Your task to perform on an android device: What's the weather? Image 0: 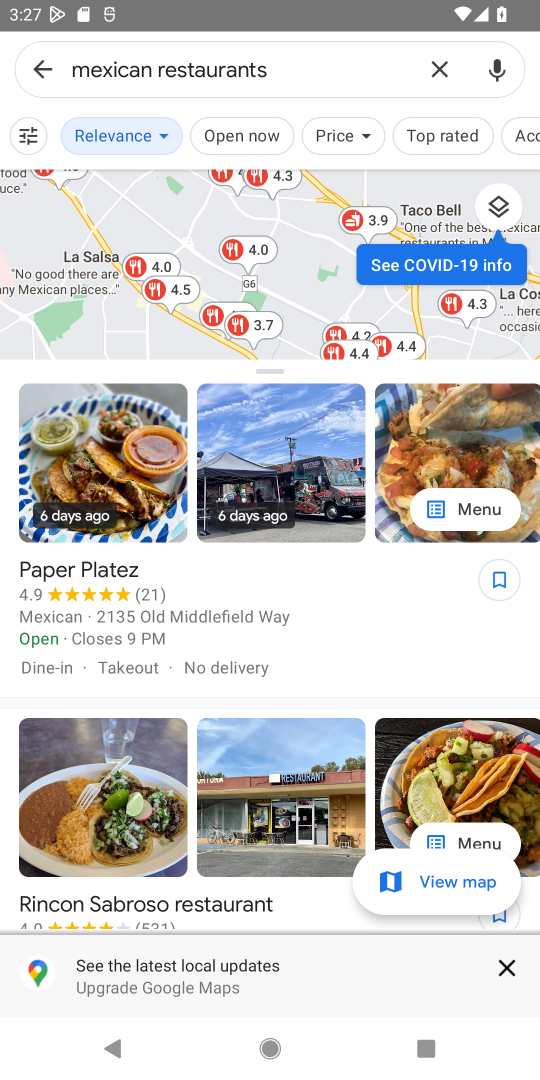
Step 0: press home button
Your task to perform on an android device: What's the weather? Image 1: 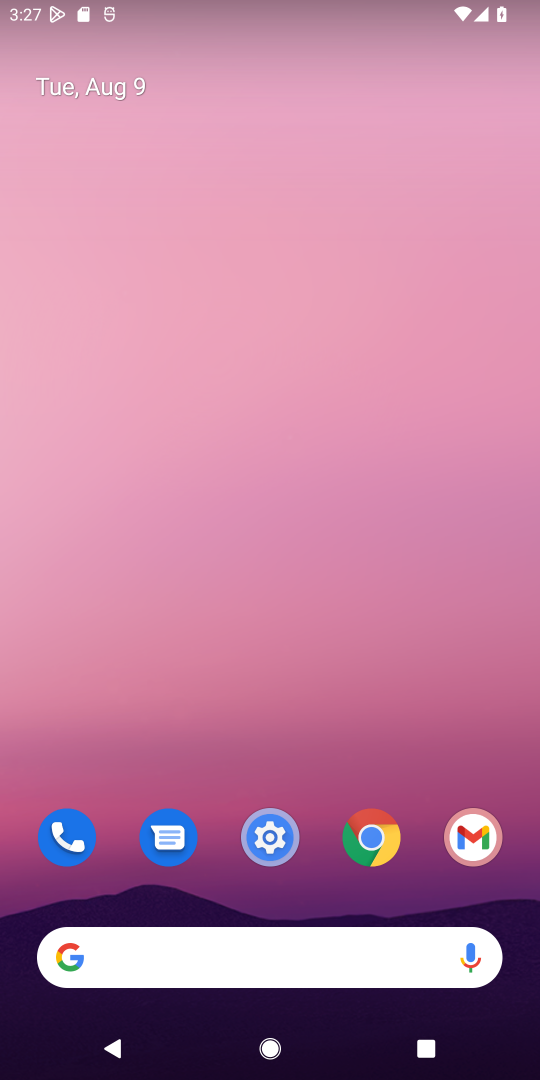
Step 1: drag from (262, 1011) to (319, 315)
Your task to perform on an android device: What's the weather? Image 2: 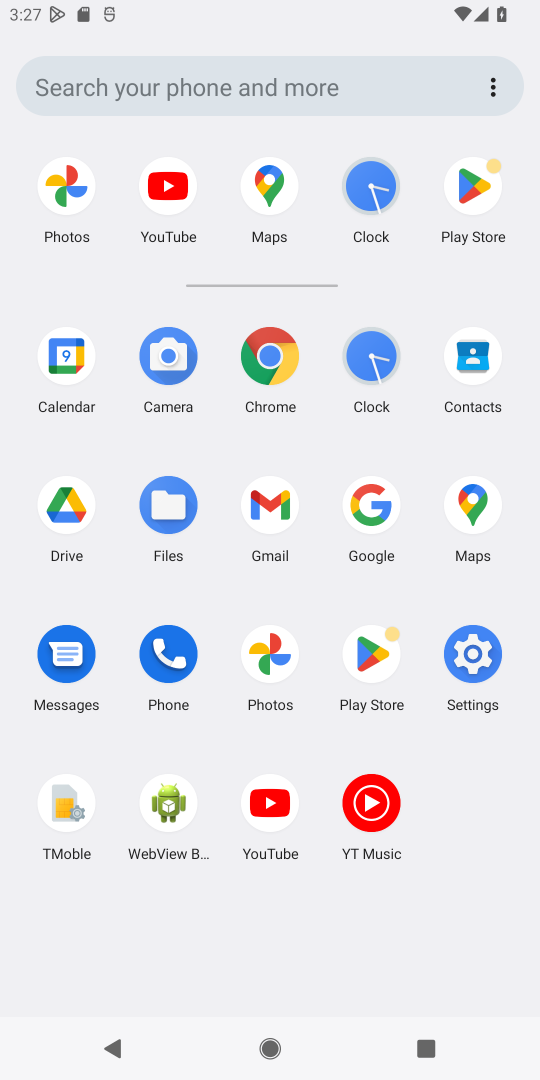
Step 2: click (270, 357)
Your task to perform on an android device: What's the weather? Image 3: 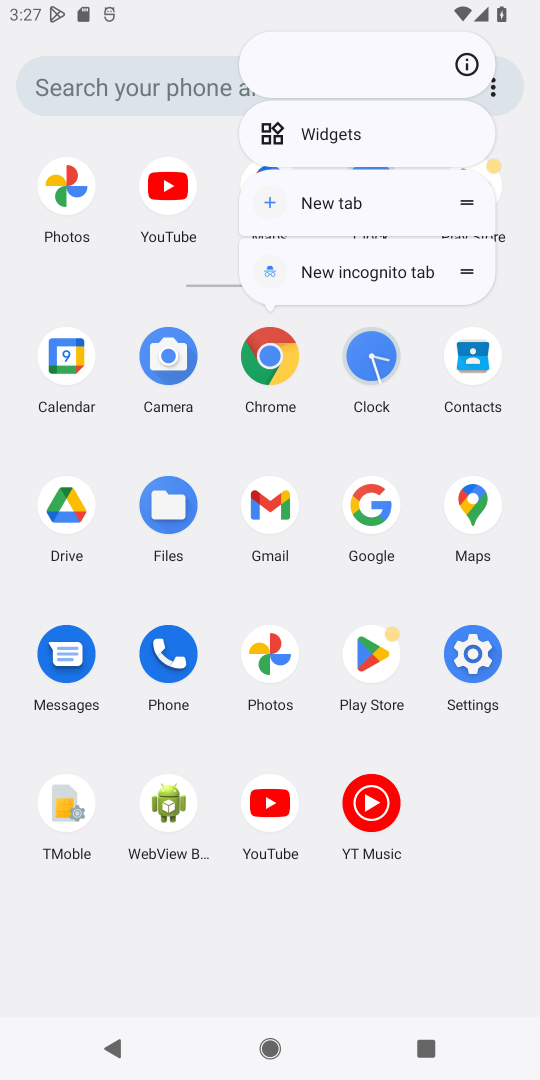
Step 3: click (265, 342)
Your task to perform on an android device: What's the weather? Image 4: 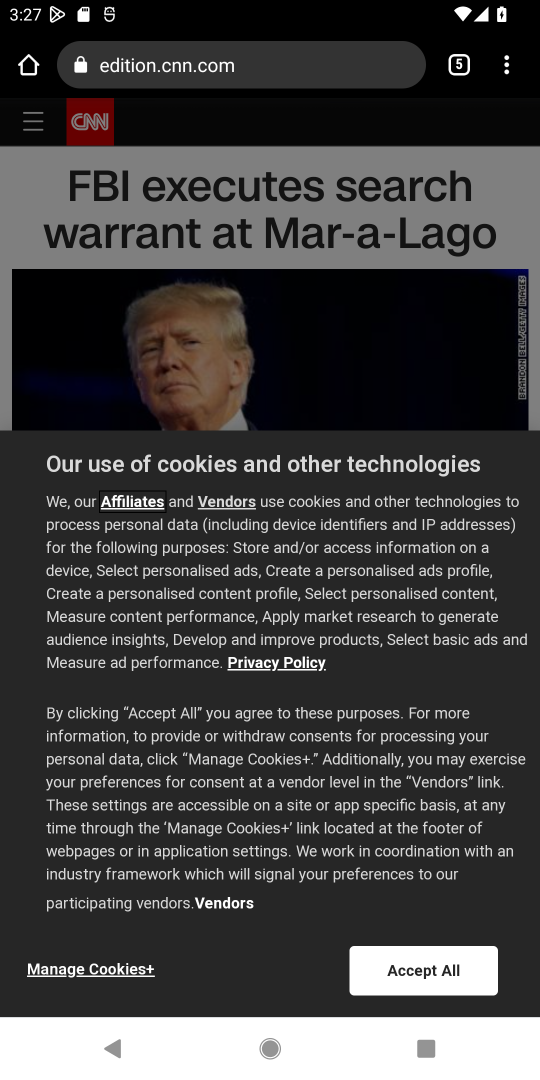
Step 4: click (511, 69)
Your task to perform on an android device: What's the weather? Image 5: 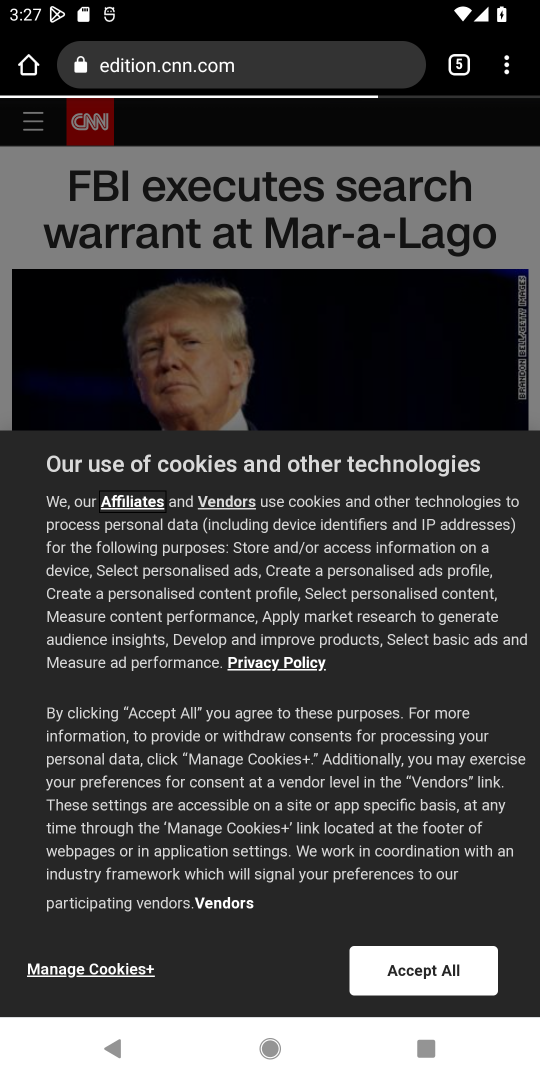
Step 5: click (511, 69)
Your task to perform on an android device: What's the weather? Image 6: 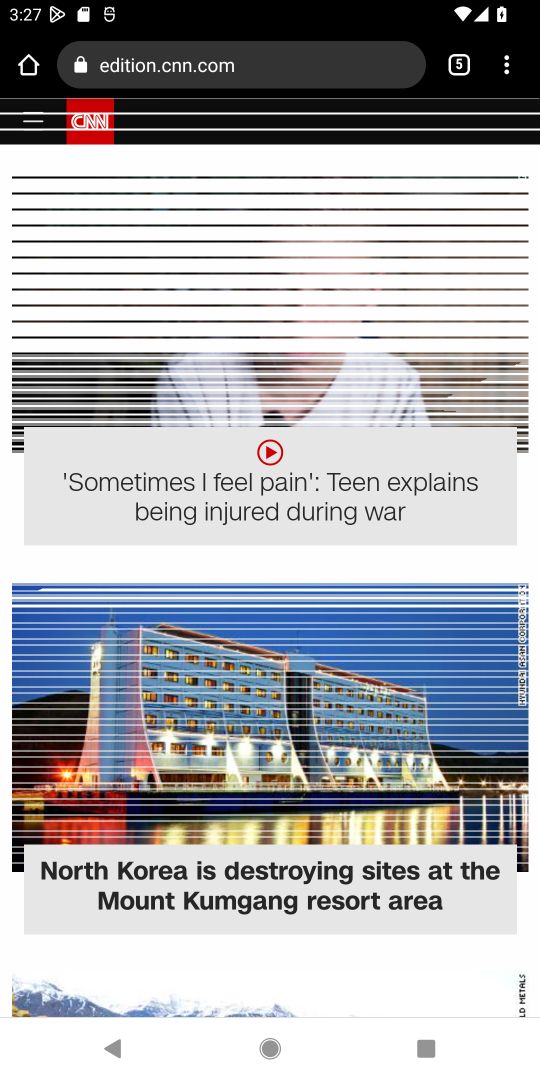
Step 6: click (511, 69)
Your task to perform on an android device: What's the weather? Image 7: 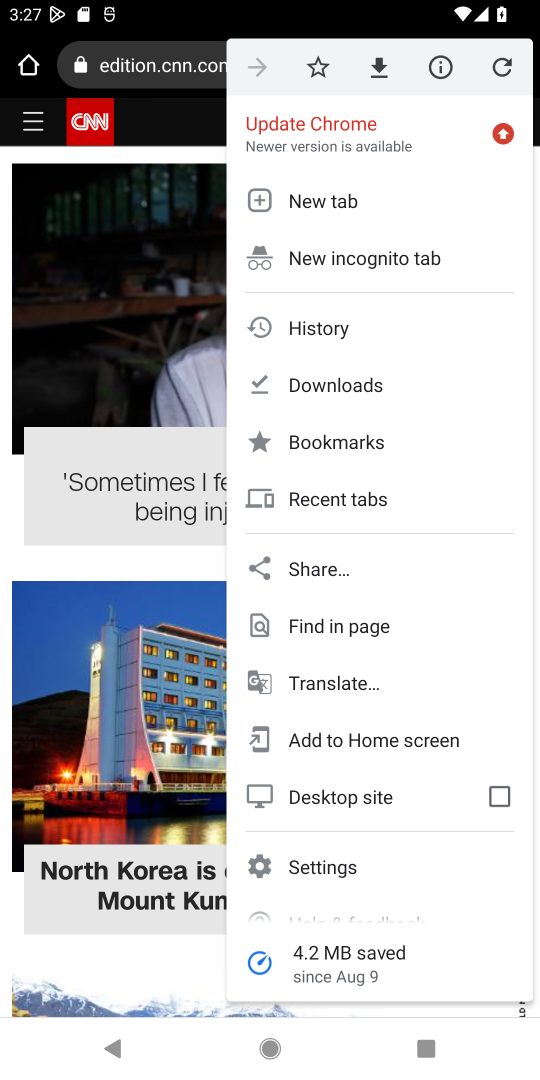
Step 7: click (352, 193)
Your task to perform on an android device: What's the weather? Image 8: 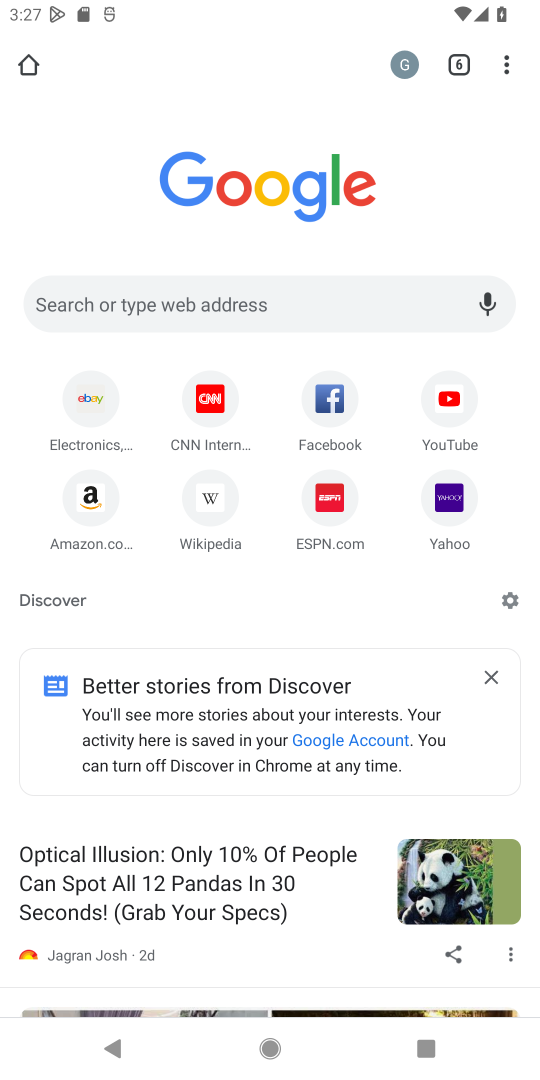
Step 8: click (81, 288)
Your task to perform on an android device: What's the weather? Image 9: 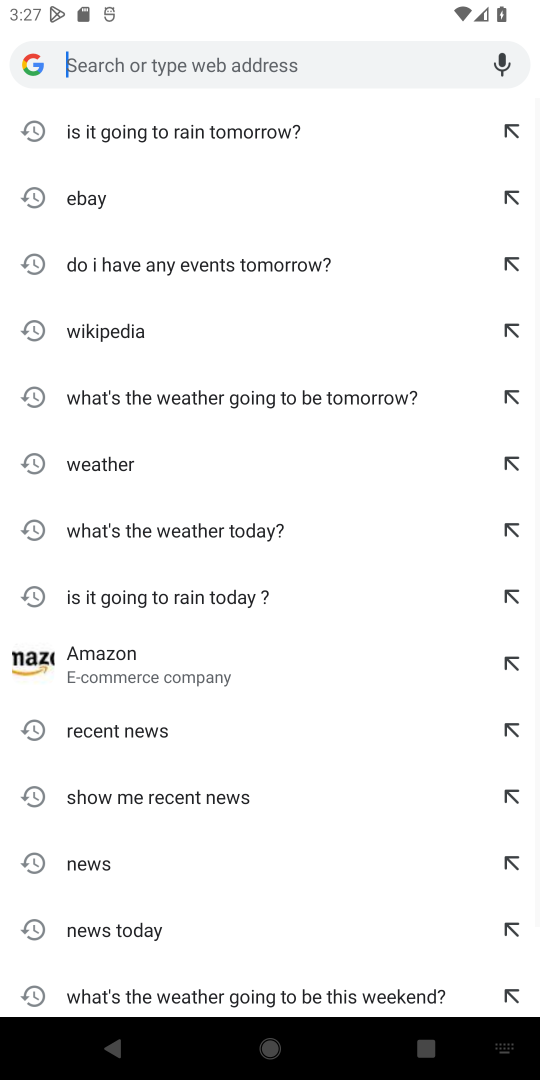
Step 9: type "What's the weather? "
Your task to perform on an android device: What's the weather? Image 10: 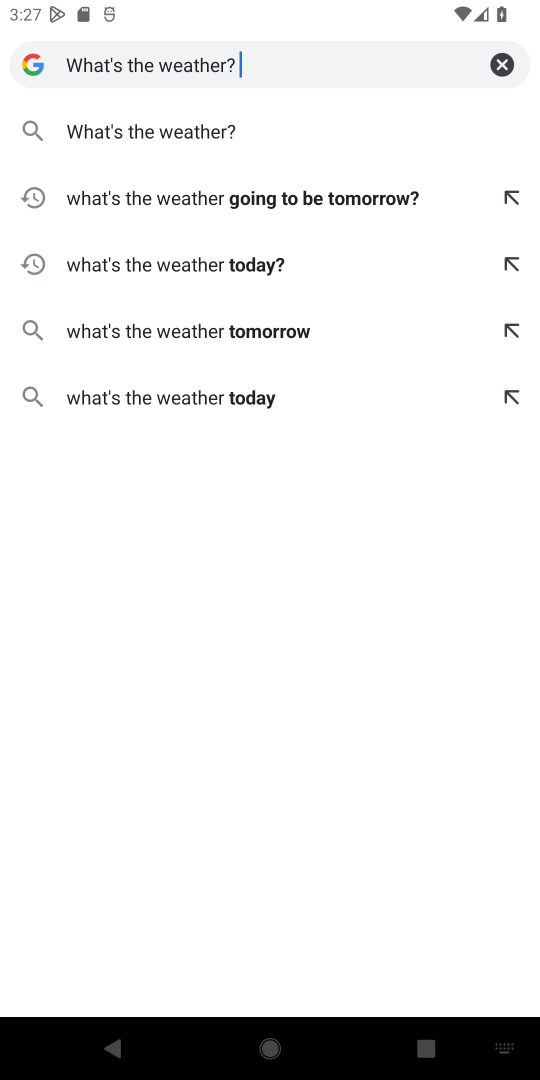
Step 10: click (214, 132)
Your task to perform on an android device: What's the weather? Image 11: 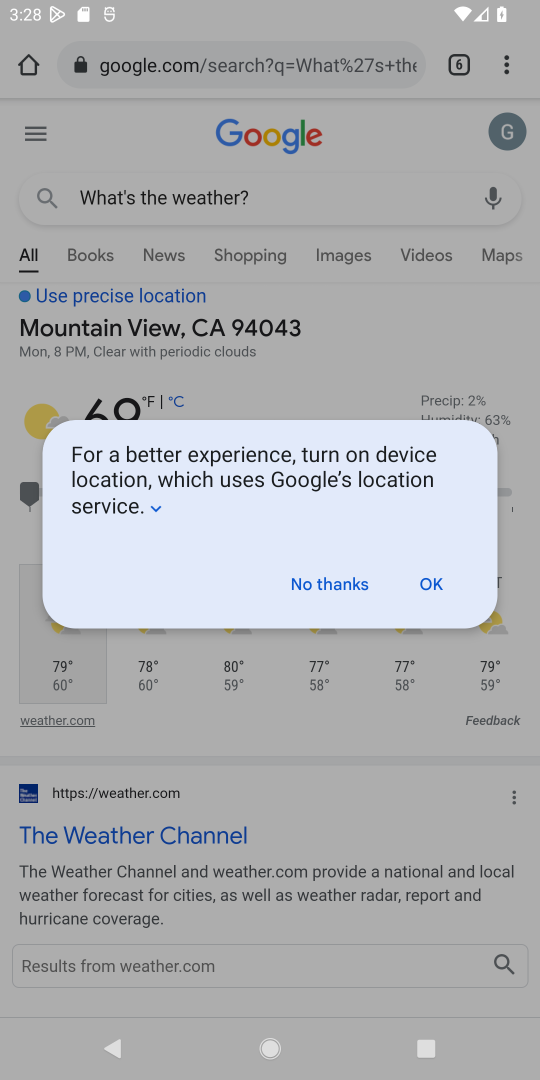
Step 11: click (433, 588)
Your task to perform on an android device: What's the weather? Image 12: 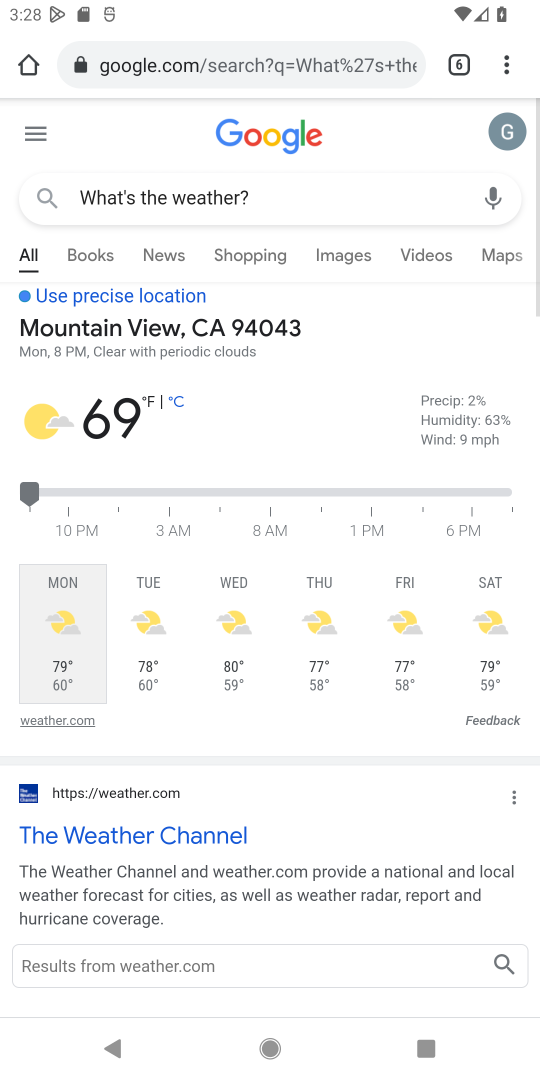
Step 12: task complete